Your task to perform on an android device: open the mobile data screen to see how much data has been used Image 0: 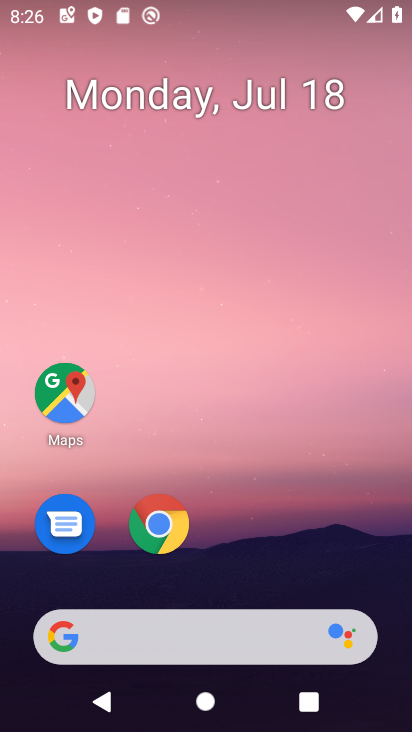
Step 0: drag from (241, 553) to (275, 43)
Your task to perform on an android device: open the mobile data screen to see how much data has been used Image 1: 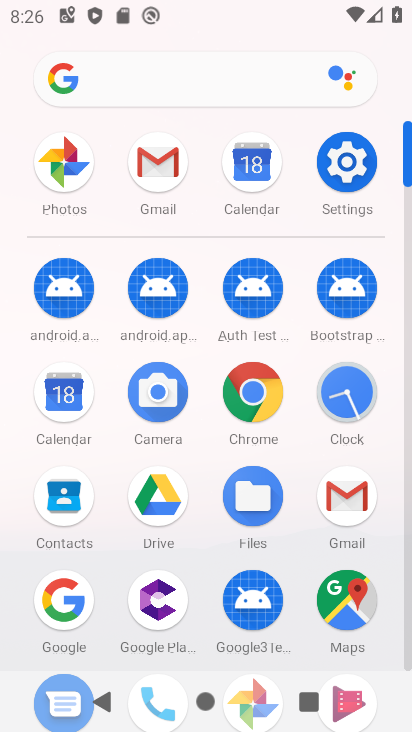
Step 1: click (360, 176)
Your task to perform on an android device: open the mobile data screen to see how much data has been used Image 2: 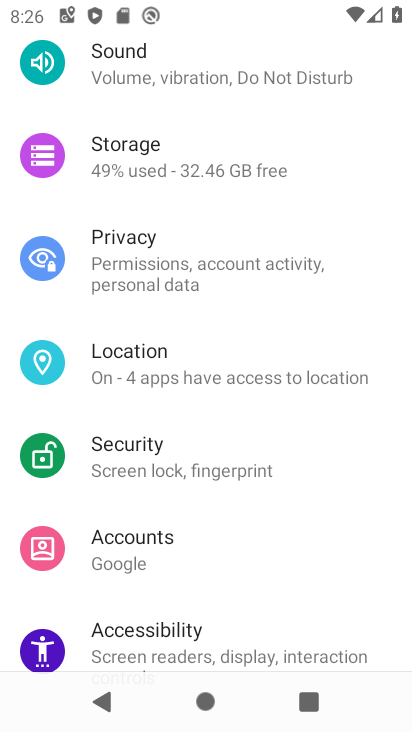
Step 2: drag from (232, 205) to (262, 584)
Your task to perform on an android device: open the mobile data screen to see how much data has been used Image 3: 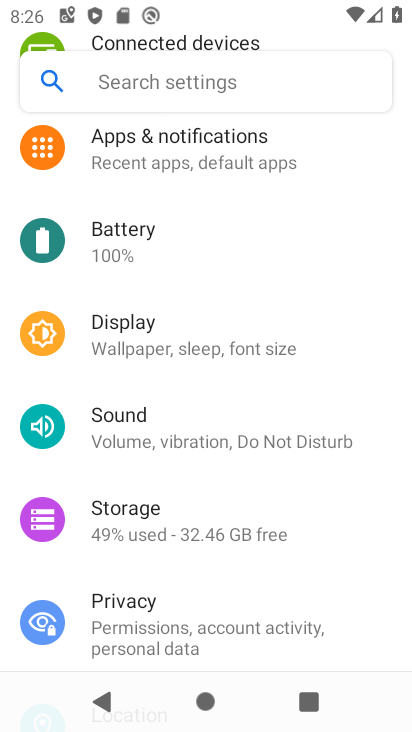
Step 3: drag from (200, 281) to (242, 611)
Your task to perform on an android device: open the mobile data screen to see how much data has been used Image 4: 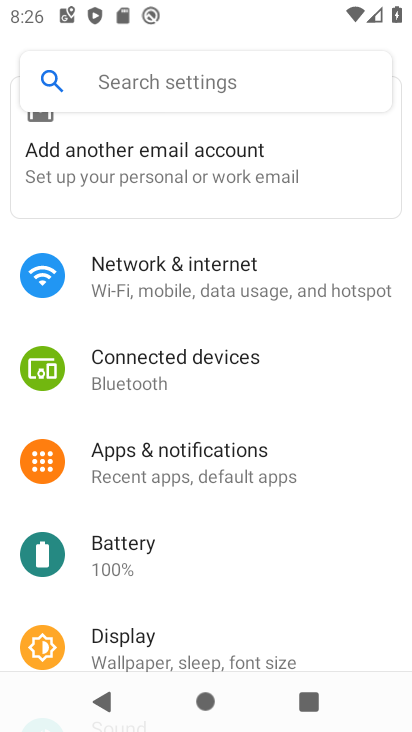
Step 4: click (172, 266)
Your task to perform on an android device: open the mobile data screen to see how much data has been used Image 5: 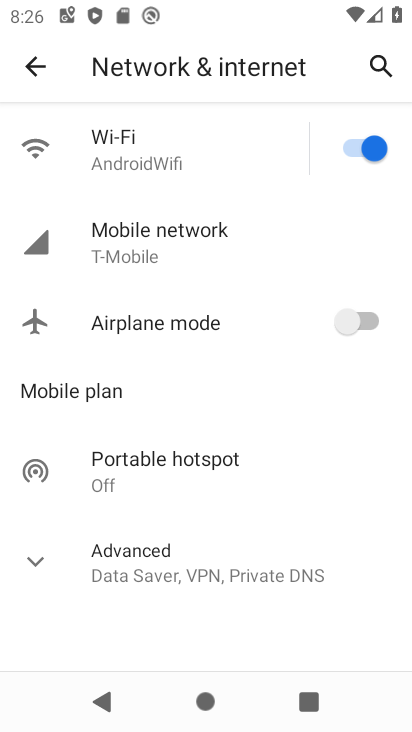
Step 5: click (174, 250)
Your task to perform on an android device: open the mobile data screen to see how much data has been used Image 6: 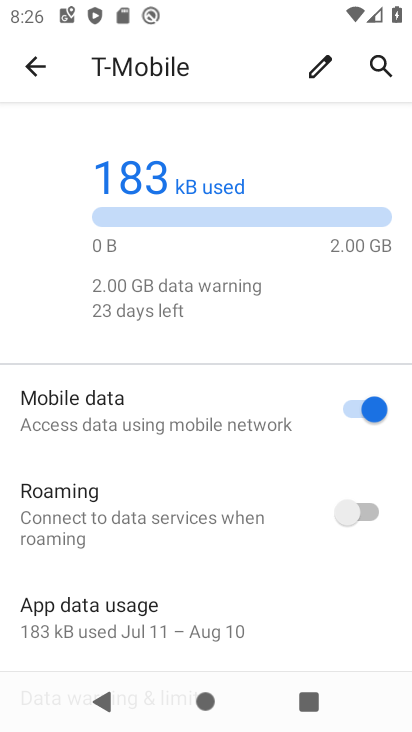
Step 6: task complete